Your task to perform on an android device: Open the calendar app, open the side menu, and click the "Day" option Image 0: 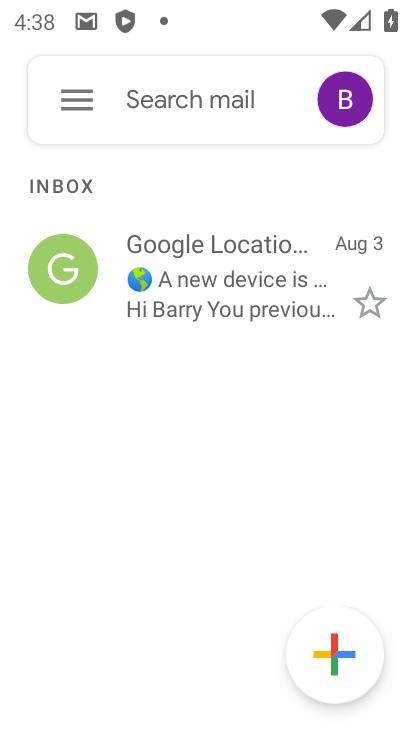
Step 0: press home button
Your task to perform on an android device: Open the calendar app, open the side menu, and click the "Day" option Image 1: 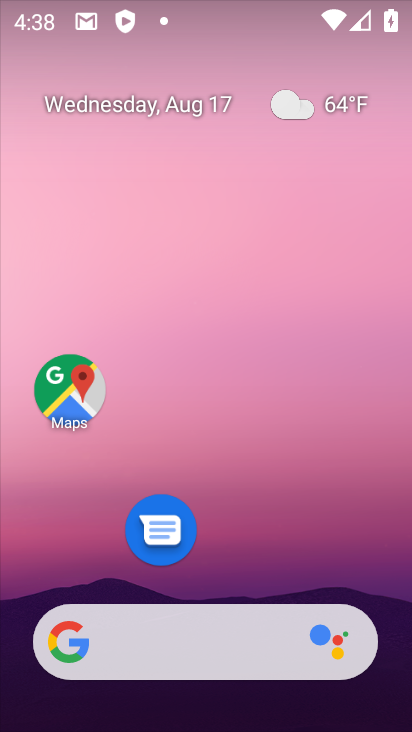
Step 1: drag from (203, 17) to (234, 99)
Your task to perform on an android device: Open the calendar app, open the side menu, and click the "Day" option Image 2: 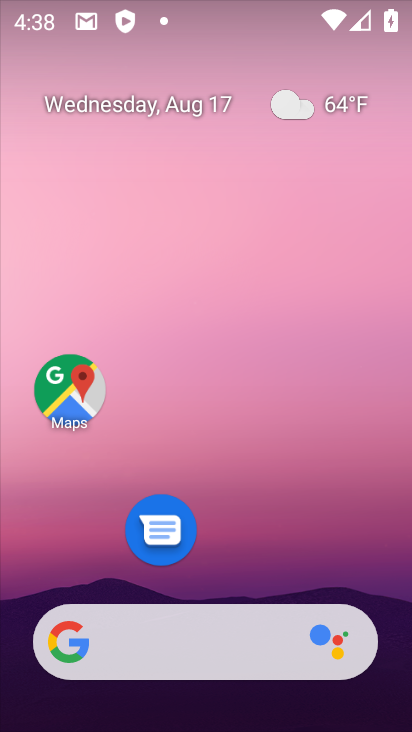
Step 2: click (210, 591)
Your task to perform on an android device: Open the calendar app, open the side menu, and click the "Day" option Image 3: 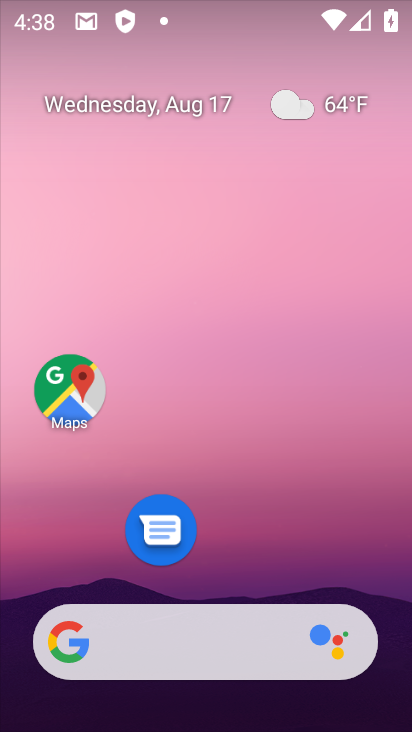
Step 3: task complete